Your task to perform on an android device: turn on notifications settings in the gmail app Image 0: 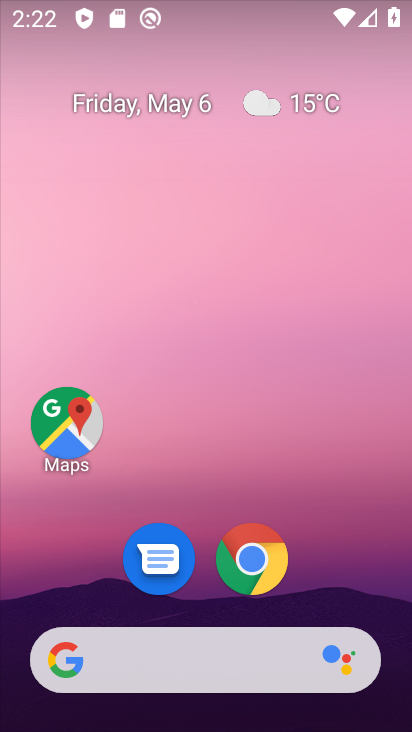
Step 0: drag from (396, 526) to (385, 54)
Your task to perform on an android device: turn on notifications settings in the gmail app Image 1: 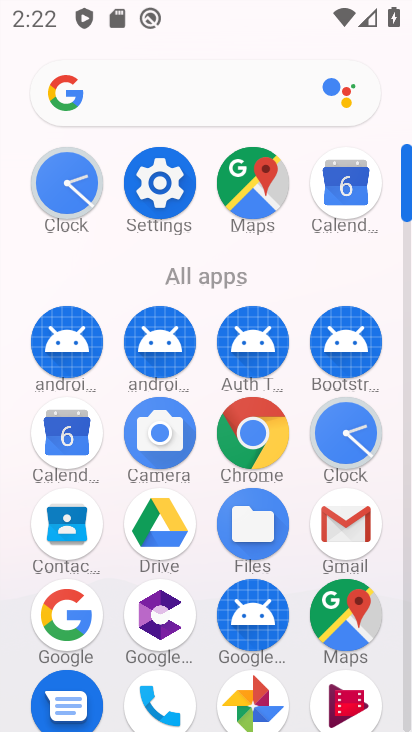
Step 1: click (326, 524)
Your task to perform on an android device: turn on notifications settings in the gmail app Image 2: 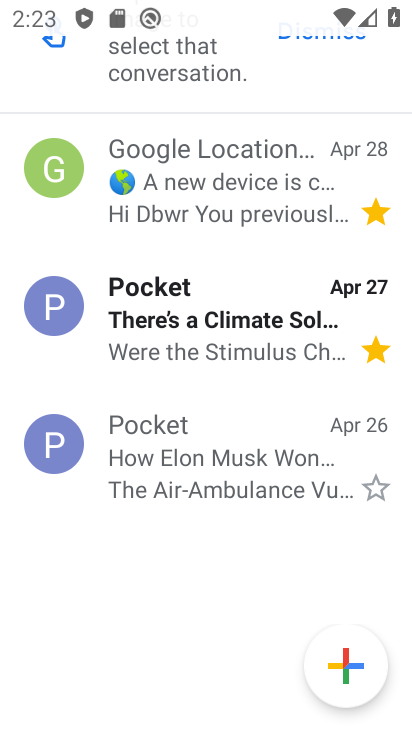
Step 2: drag from (212, 398) to (236, 696)
Your task to perform on an android device: turn on notifications settings in the gmail app Image 3: 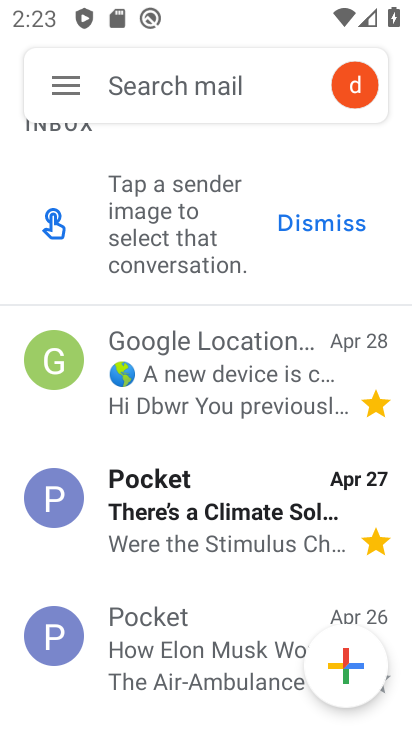
Step 3: click (71, 74)
Your task to perform on an android device: turn on notifications settings in the gmail app Image 4: 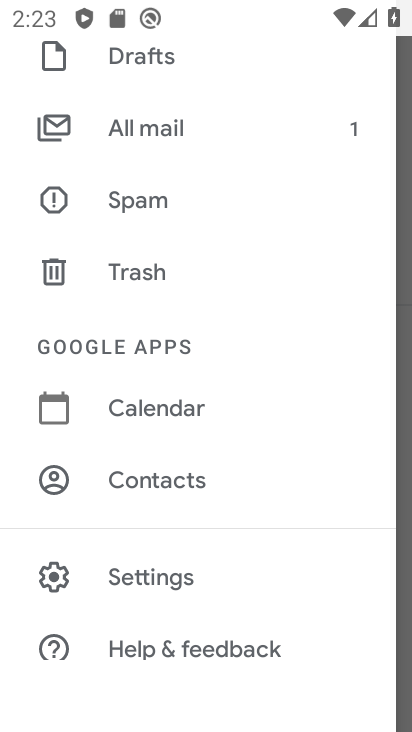
Step 4: click (142, 564)
Your task to perform on an android device: turn on notifications settings in the gmail app Image 5: 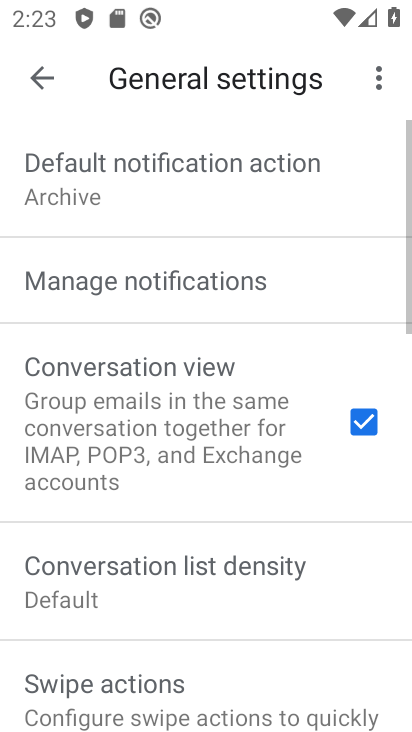
Step 5: click (218, 275)
Your task to perform on an android device: turn on notifications settings in the gmail app Image 6: 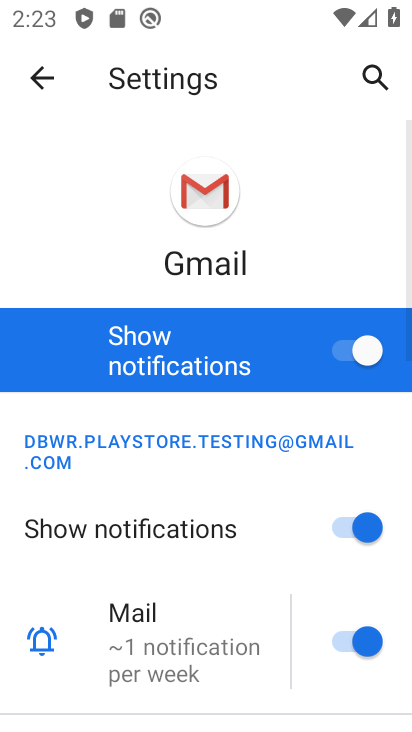
Step 6: task complete